Your task to perform on an android device: Open accessibility settings Image 0: 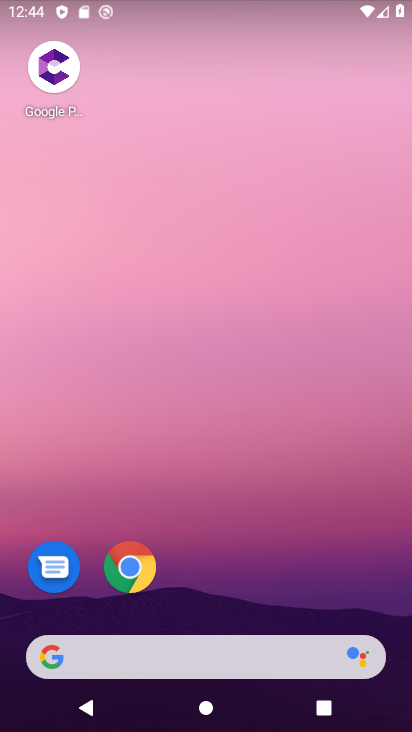
Step 0: drag from (234, 610) to (247, 143)
Your task to perform on an android device: Open accessibility settings Image 1: 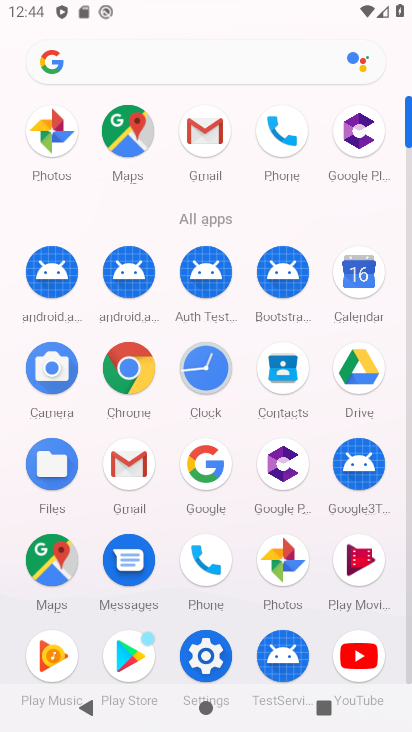
Step 1: click (198, 658)
Your task to perform on an android device: Open accessibility settings Image 2: 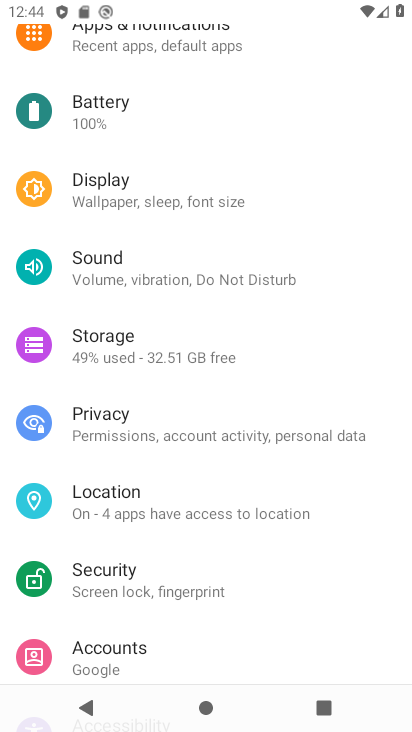
Step 2: drag from (227, 643) to (213, 288)
Your task to perform on an android device: Open accessibility settings Image 3: 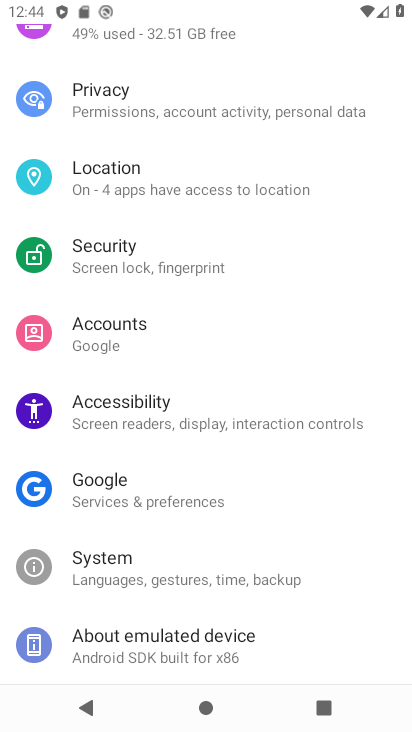
Step 3: click (235, 407)
Your task to perform on an android device: Open accessibility settings Image 4: 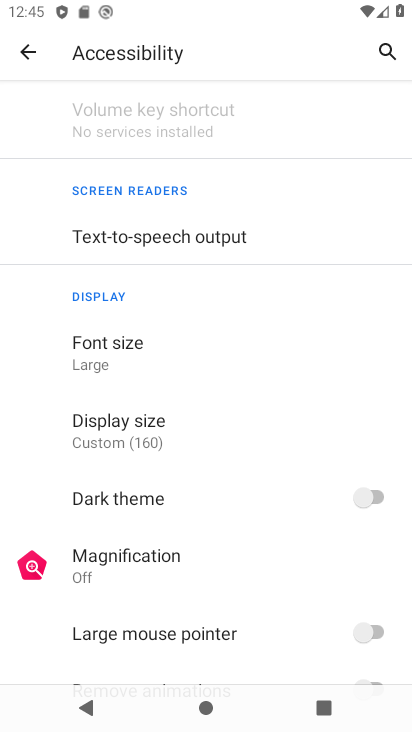
Step 4: task complete